Your task to perform on an android device: Clear all items from cart on ebay.com. Image 0: 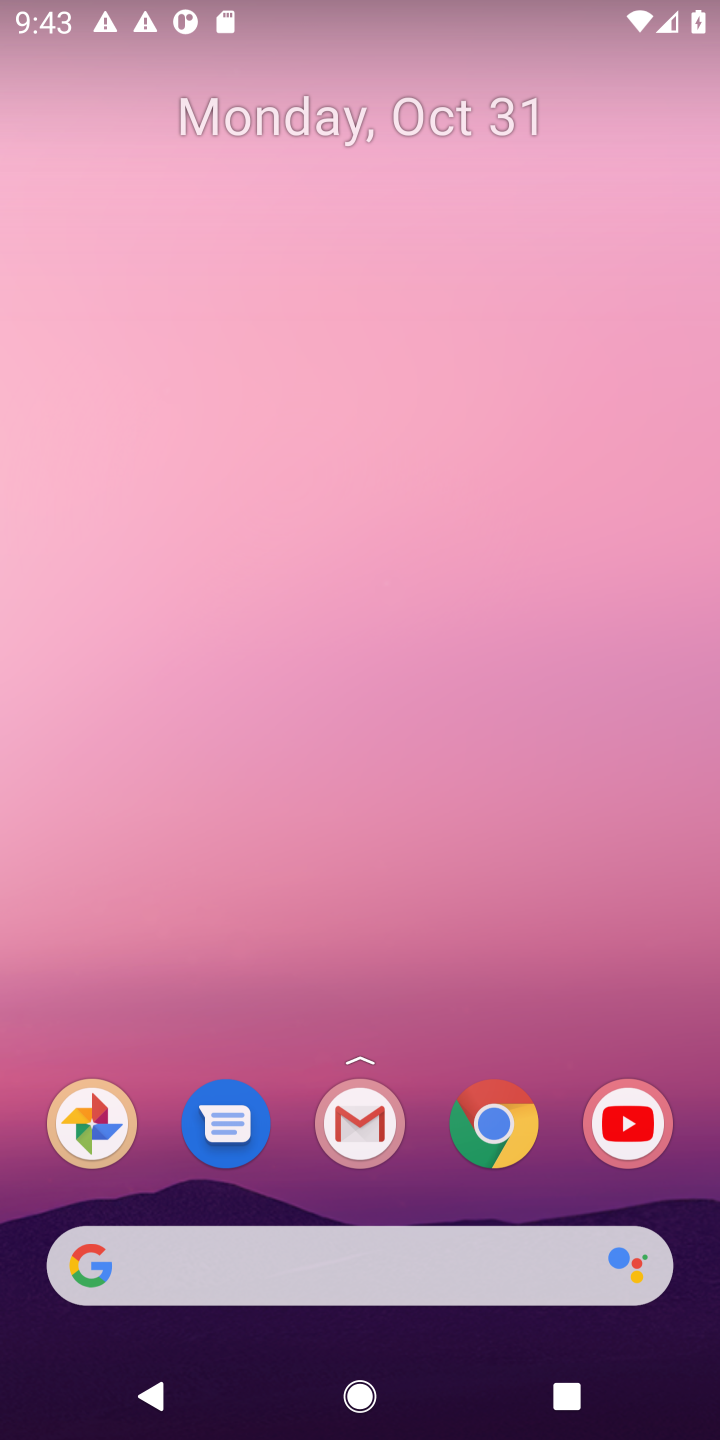
Step 0: press home button
Your task to perform on an android device: Clear all items from cart on ebay.com. Image 1: 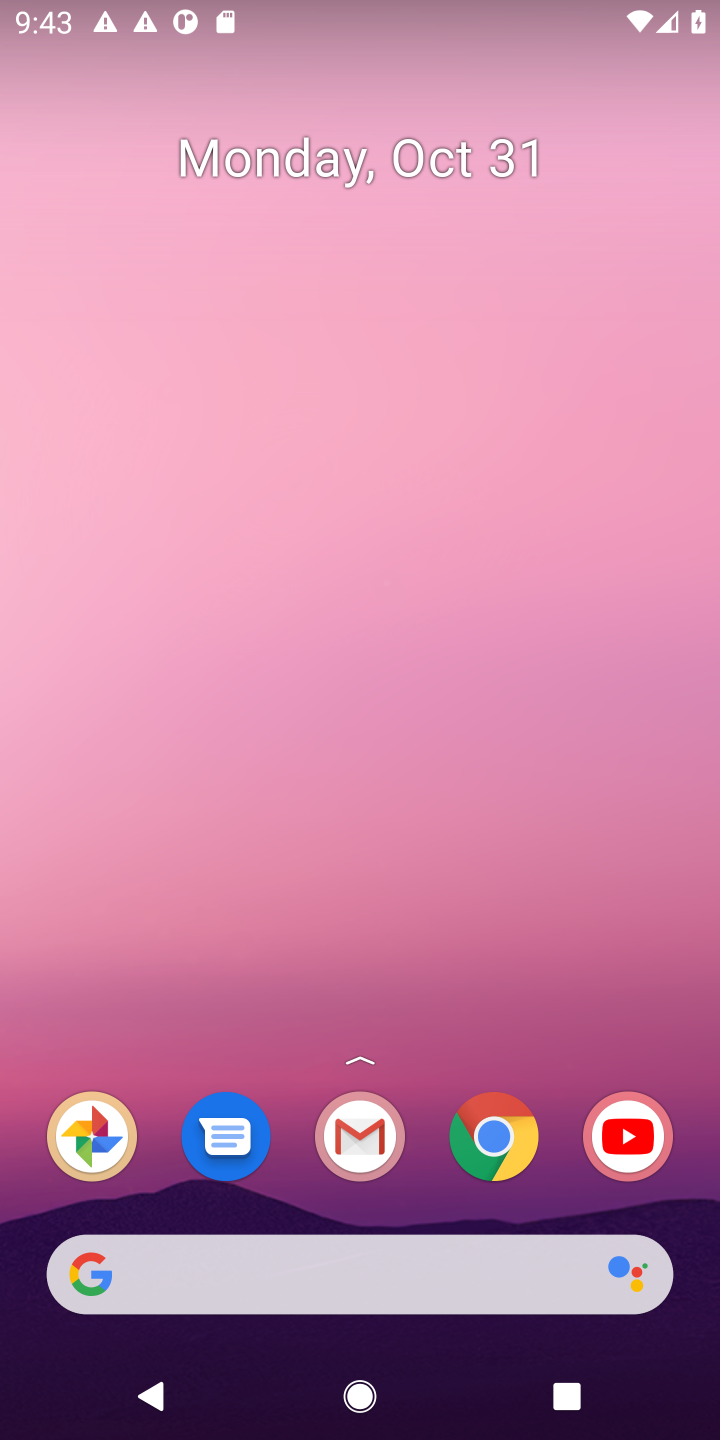
Step 1: click (132, 1273)
Your task to perform on an android device: Clear all items from cart on ebay.com. Image 2: 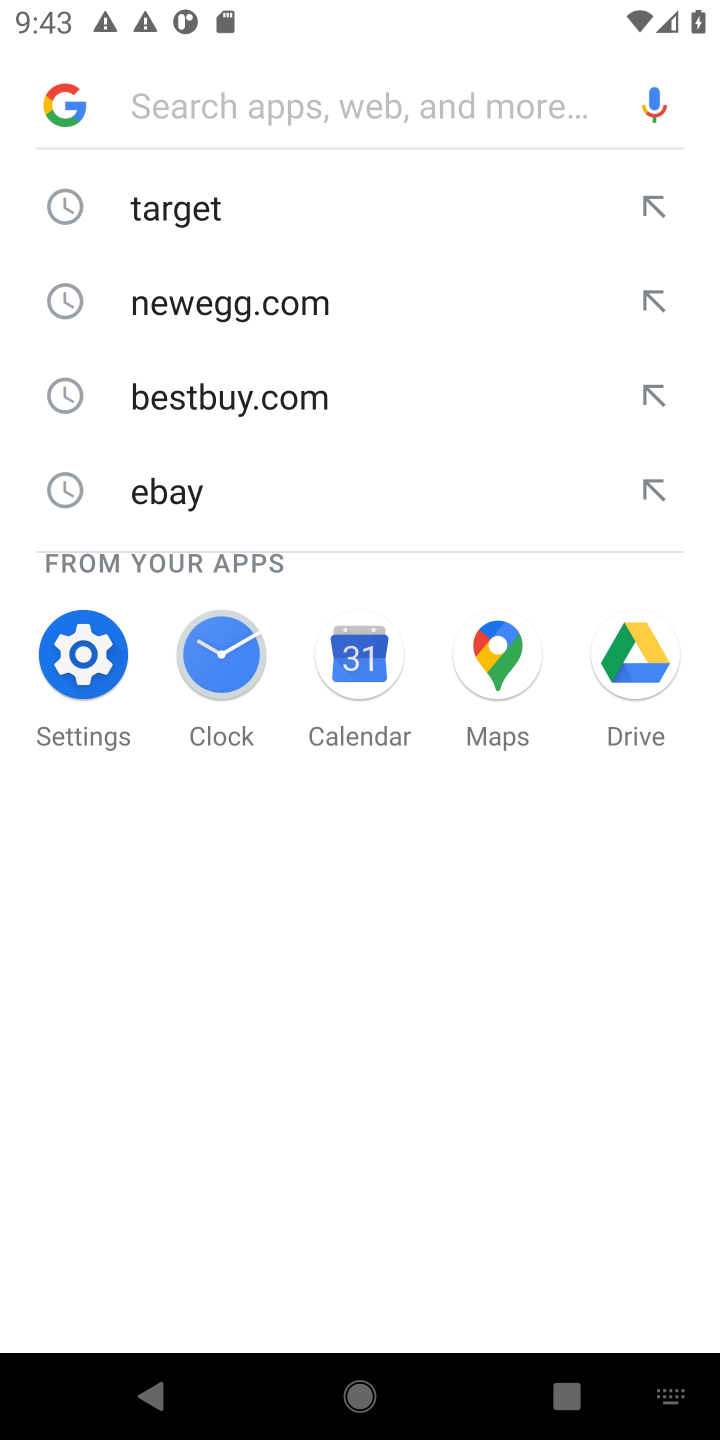
Step 2: type "ebay.com"
Your task to perform on an android device: Clear all items from cart on ebay.com. Image 3: 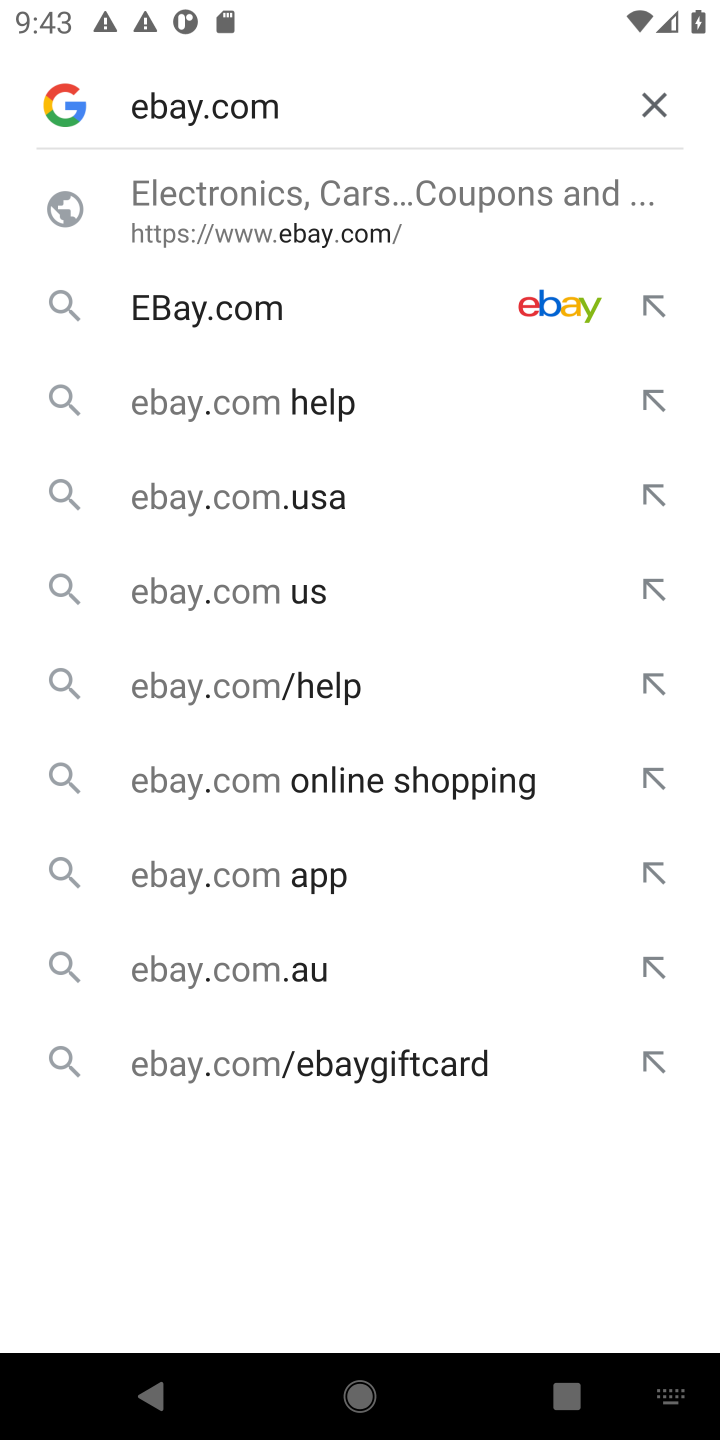
Step 3: press enter
Your task to perform on an android device: Clear all items from cart on ebay.com. Image 4: 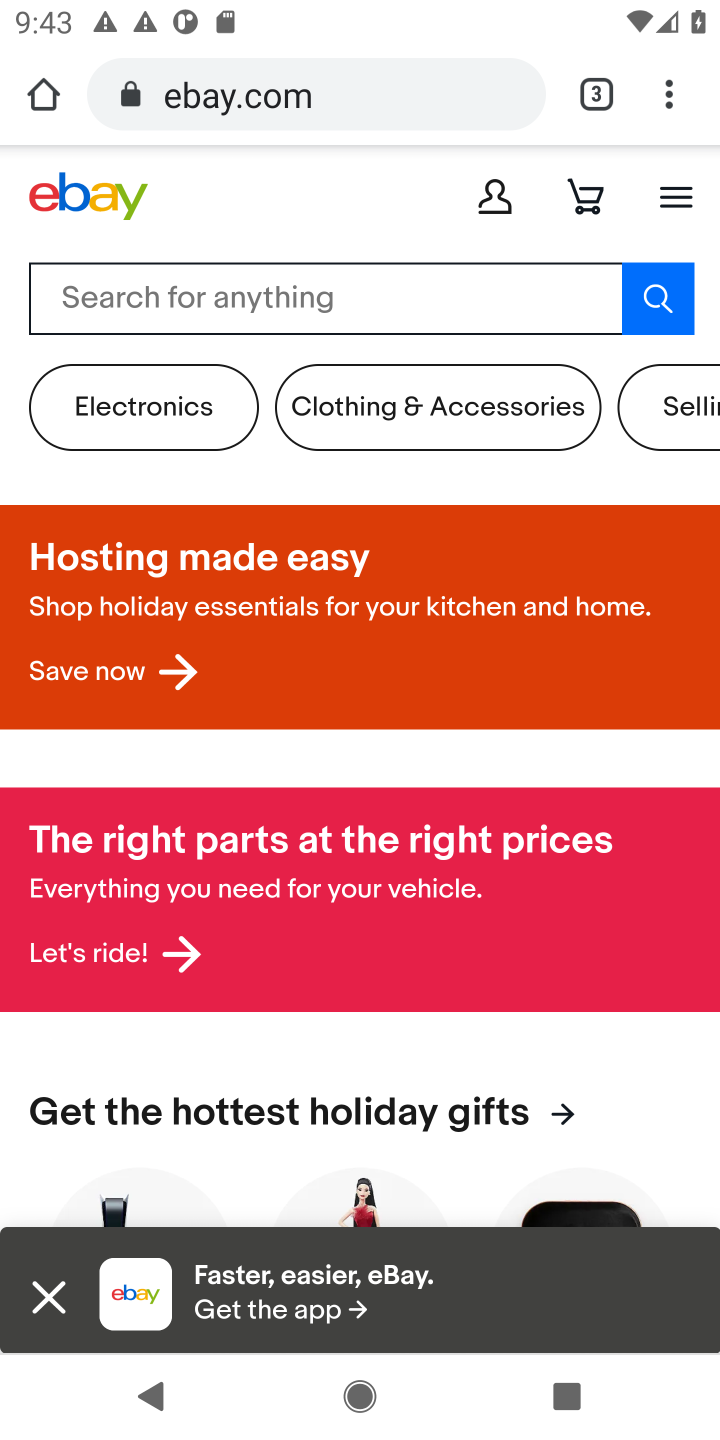
Step 4: click (589, 199)
Your task to perform on an android device: Clear all items from cart on ebay.com. Image 5: 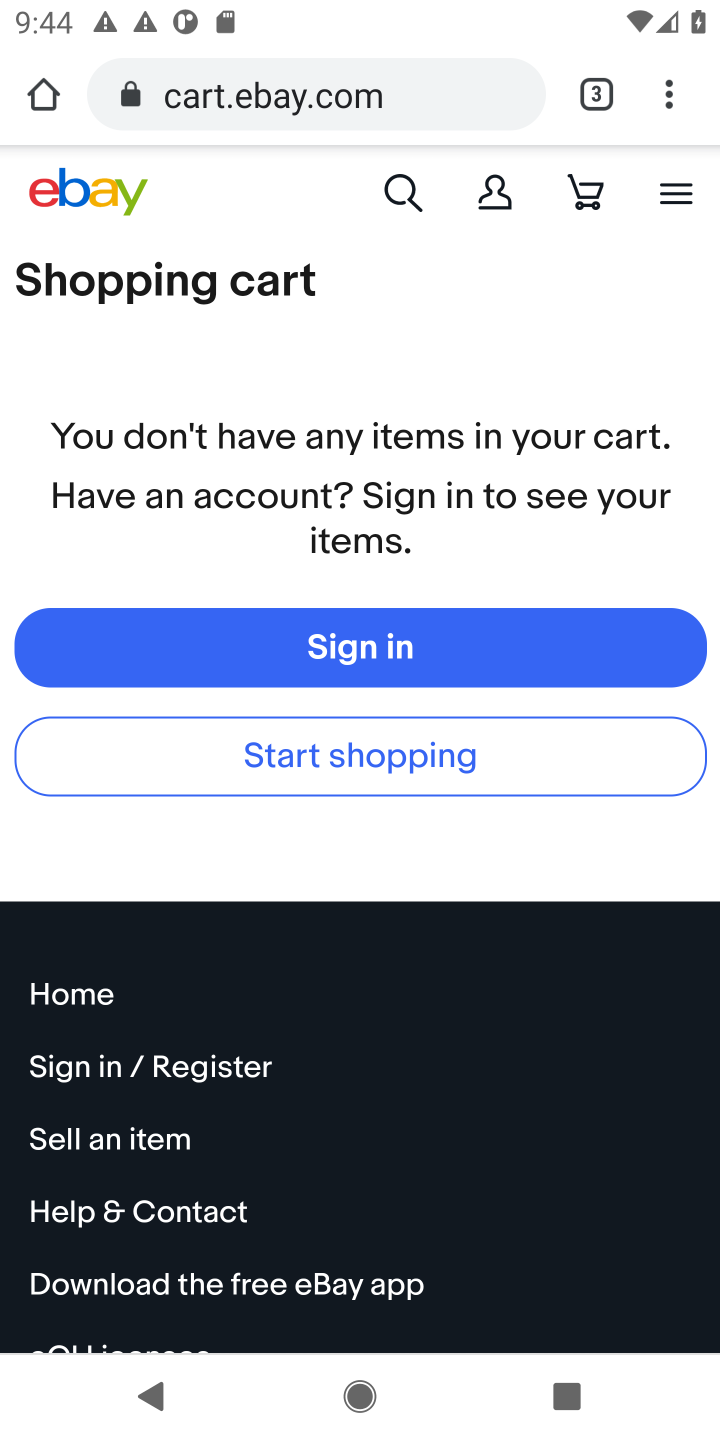
Step 5: task complete